Your task to perform on an android device: turn on translation in the chrome app Image 0: 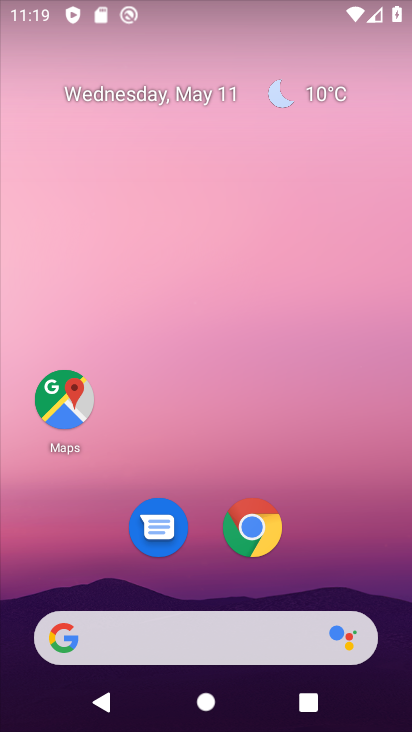
Step 0: drag from (212, 564) to (210, 128)
Your task to perform on an android device: turn on translation in the chrome app Image 1: 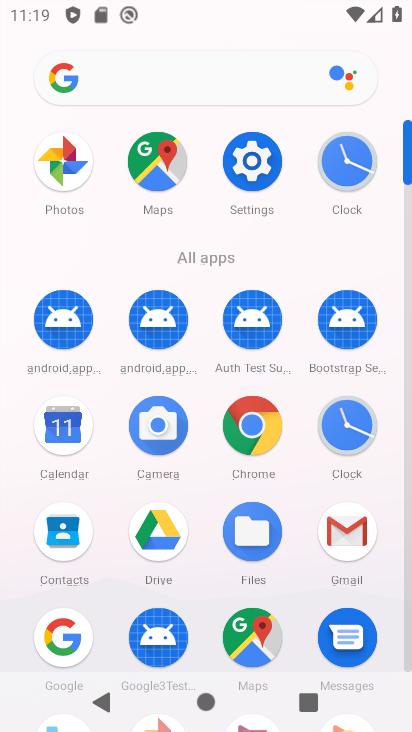
Step 1: click (250, 436)
Your task to perform on an android device: turn on translation in the chrome app Image 2: 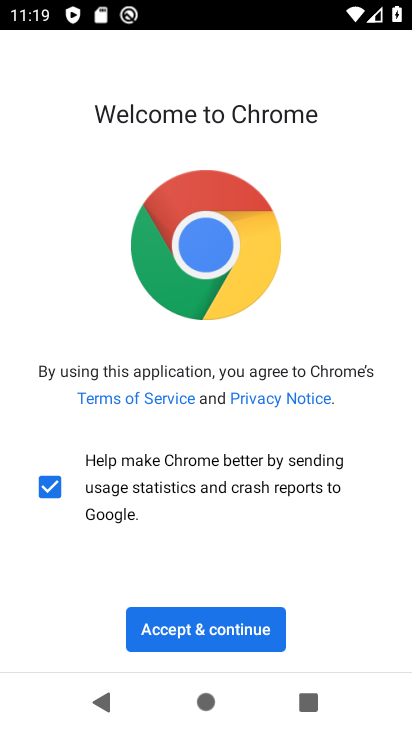
Step 2: click (221, 637)
Your task to perform on an android device: turn on translation in the chrome app Image 3: 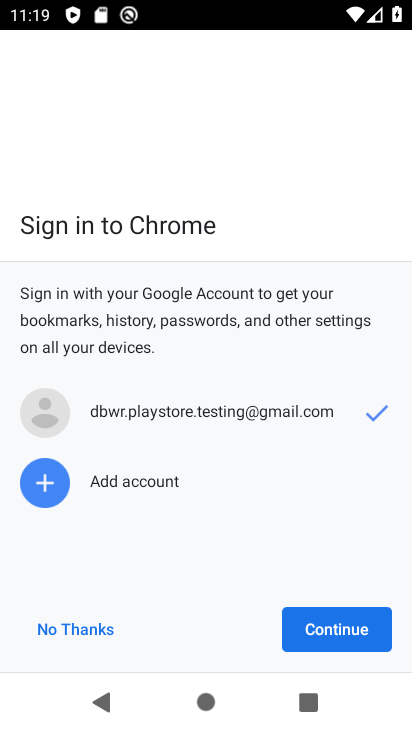
Step 3: click (327, 612)
Your task to perform on an android device: turn on translation in the chrome app Image 4: 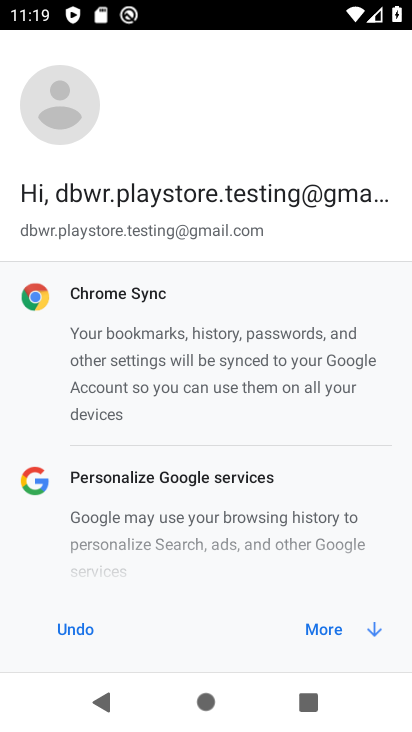
Step 4: click (320, 628)
Your task to perform on an android device: turn on translation in the chrome app Image 5: 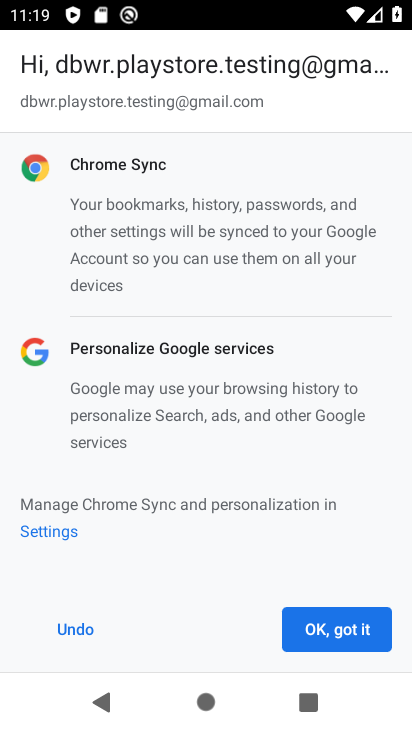
Step 5: click (329, 635)
Your task to perform on an android device: turn on translation in the chrome app Image 6: 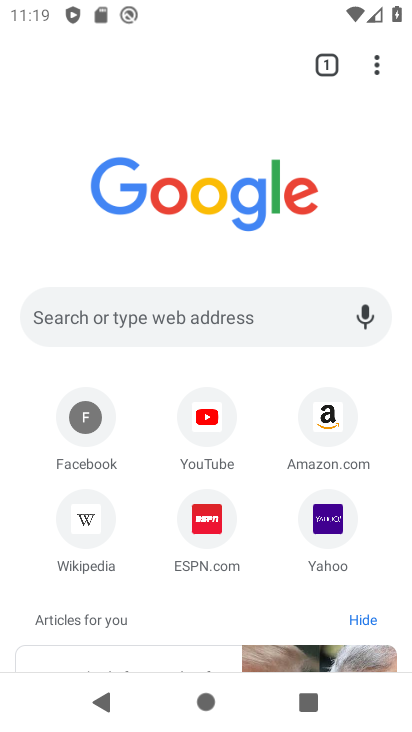
Step 6: click (375, 70)
Your task to perform on an android device: turn on translation in the chrome app Image 7: 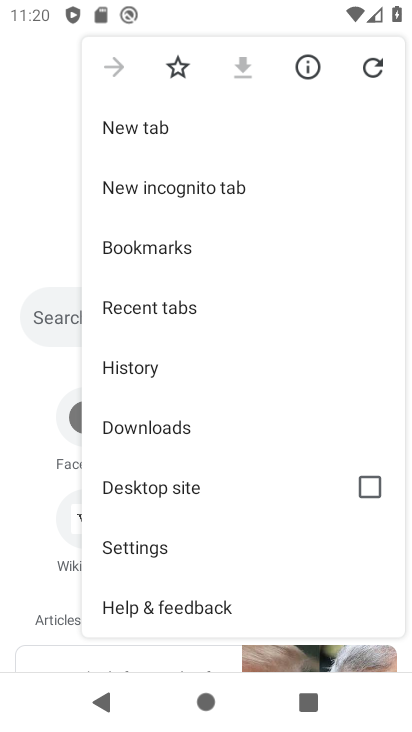
Step 7: drag from (168, 530) to (234, 292)
Your task to perform on an android device: turn on translation in the chrome app Image 8: 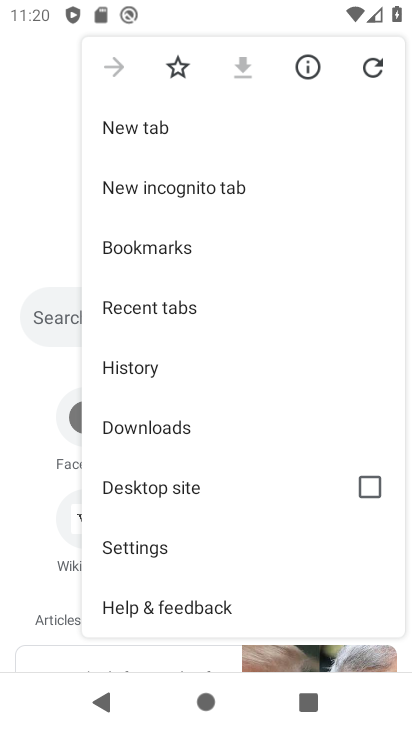
Step 8: click (137, 547)
Your task to perform on an android device: turn on translation in the chrome app Image 9: 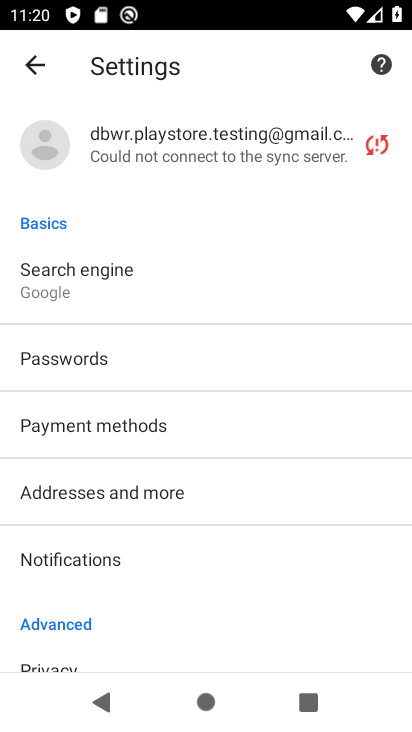
Step 9: drag from (103, 536) to (143, 326)
Your task to perform on an android device: turn on translation in the chrome app Image 10: 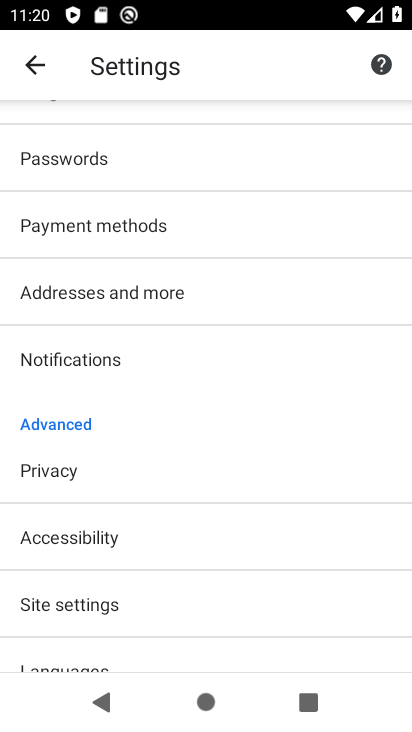
Step 10: drag from (96, 605) to (129, 417)
Your task to perform on an android device: turn on translation in the chrome app Image 11: 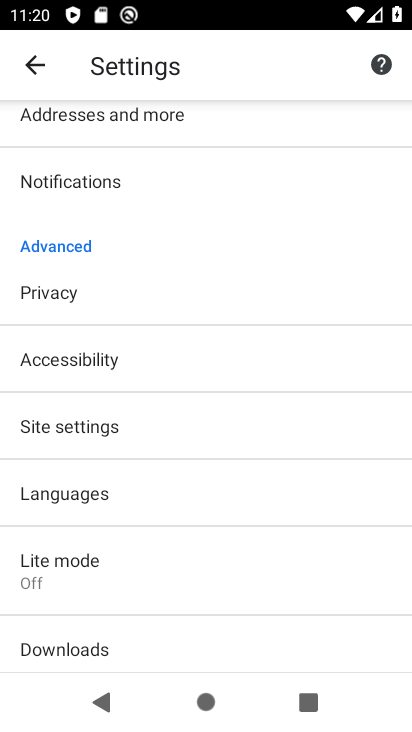
Step 11: click (69, 506)
Your task to perform on an android device: turn on translation in the chrome app Image 12: 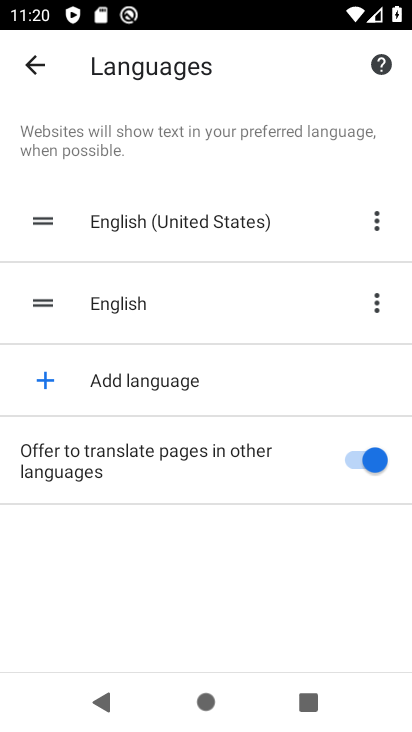
Step 12: task complete